Your task to perform on an android device: turn off picture-in-picture Image 0: 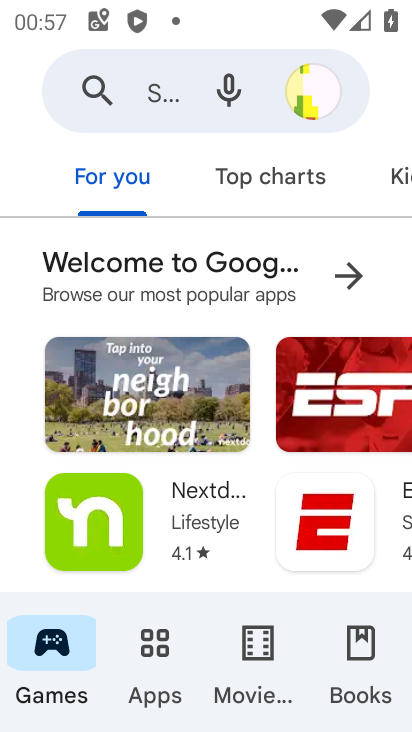
Step 0: press home button
Your task to perform on an android device: turn off picture-in-picture Image 1: 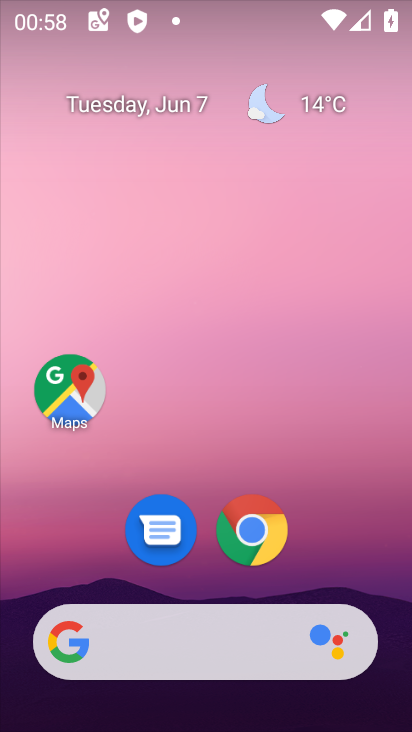
Step 1: click (253, 517)
Your task to perform on an android device: turn off picture-in-picture Image 2: 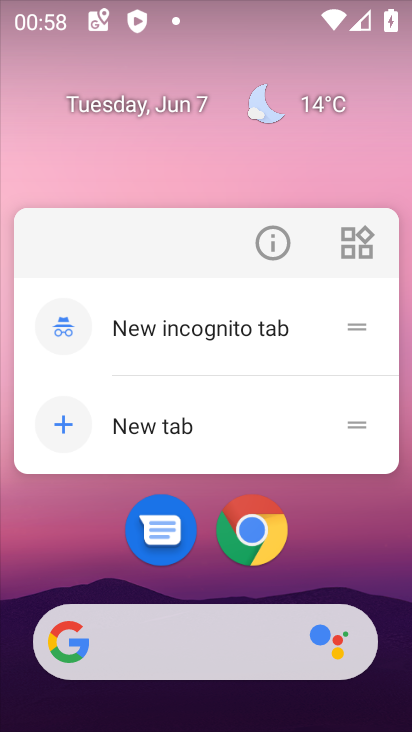
Step 2: click (338, 533)
Your task to perform on an android device: turn off picture-in-picture Image 3: 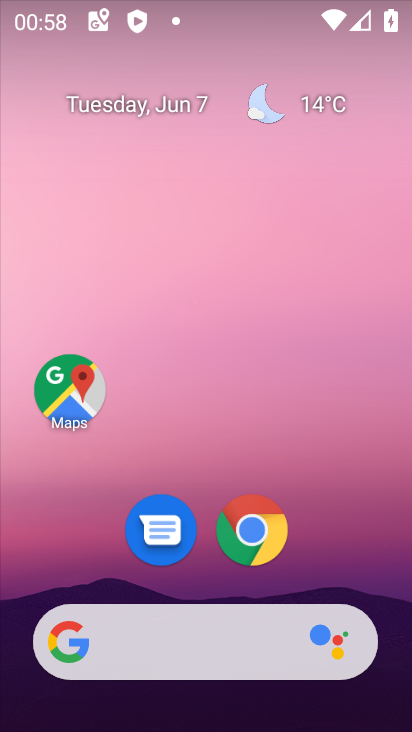
Step 3: drag from (322, 490) to (326, 261)
Your task to perform on an android device: turn off picture-in-picture Image 4: 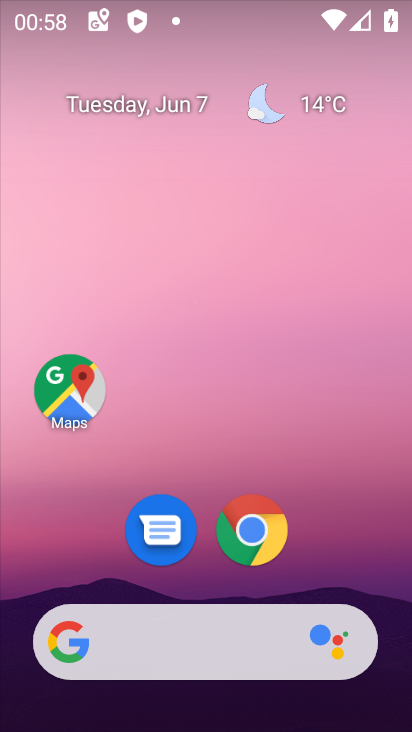
Step 4: drag from (264, 576) to (258, 160)
Your task to perform on an android device: turn off picture-in-picture Image 5: 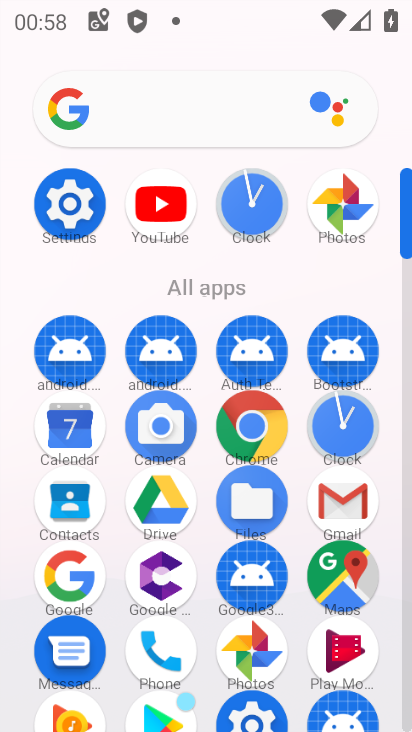
Step 5: click (68, 206)
Your task to perform on an android device: turn off picture-in-picture Image 6: 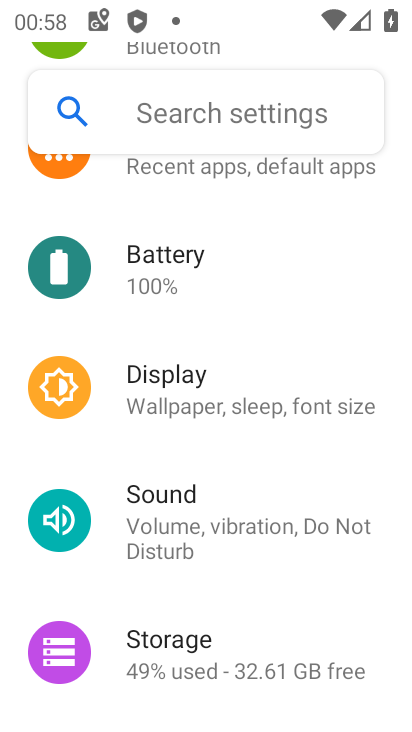
Step 6: drag from (203, 153) to (207, 560)
Your task to perform on an android device: turn off picture-in-picture Image 7: 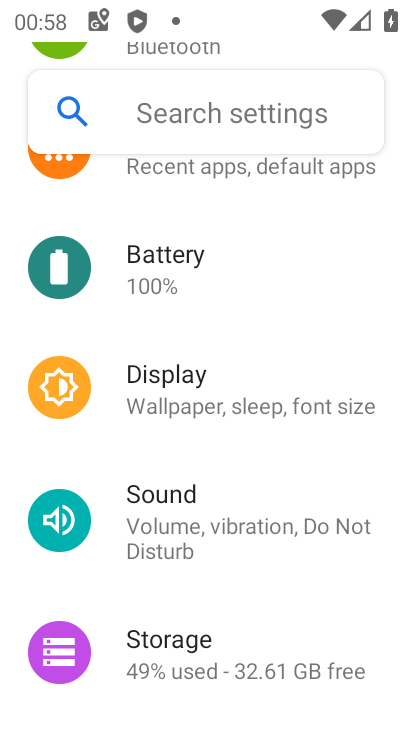
Step 7: drag from (186, 237) to (234, 575)
Your task to perform on an android device: turn off picture-in-picture Image 8: 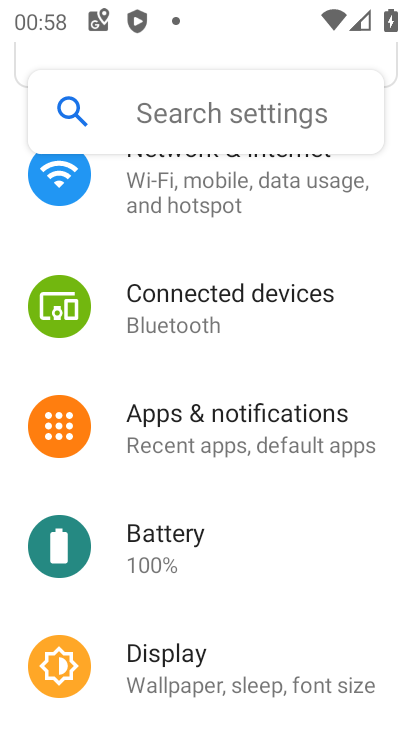
Step 8: drag from (229, 205) to (275, 686)
Your task to perform on an android device: turn off picture-in-picture Image 9: 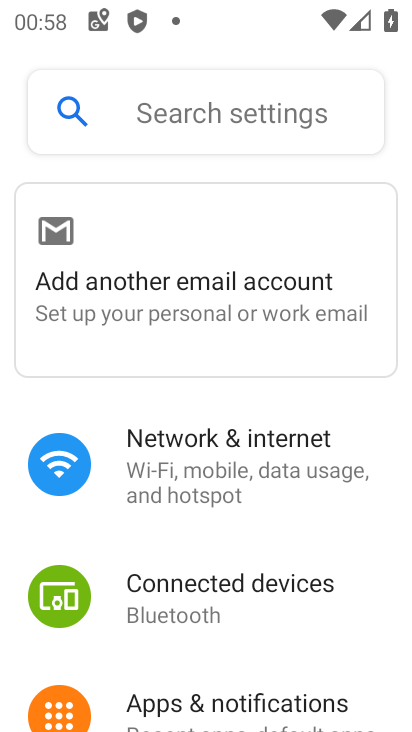
Step 9: click (199, 698)
Your task to perform on an android device: turn off picture-in-picture Image 10: 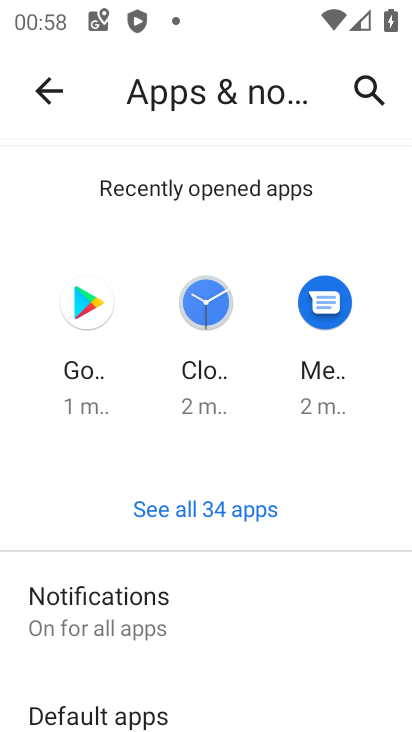
Step 10: drag from (216, 662) to (250, 302)
Your task to perform on an android device: turn off picture-in-picture Image 11: 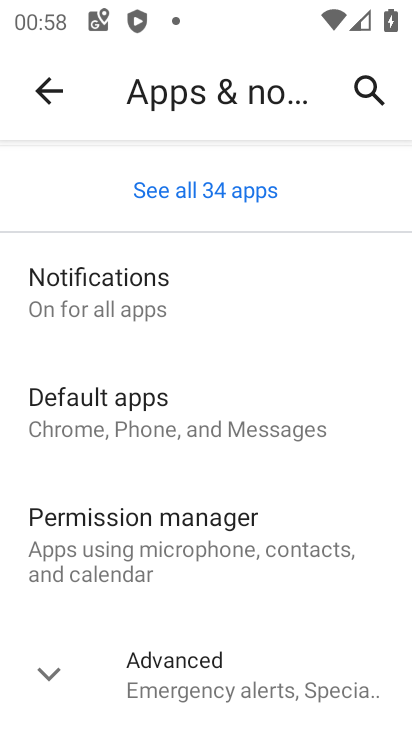
Step 11: drag from (204, 662) to (240, 324)
Your task to perform on an android device: turn off picture-in-picture Image 12: 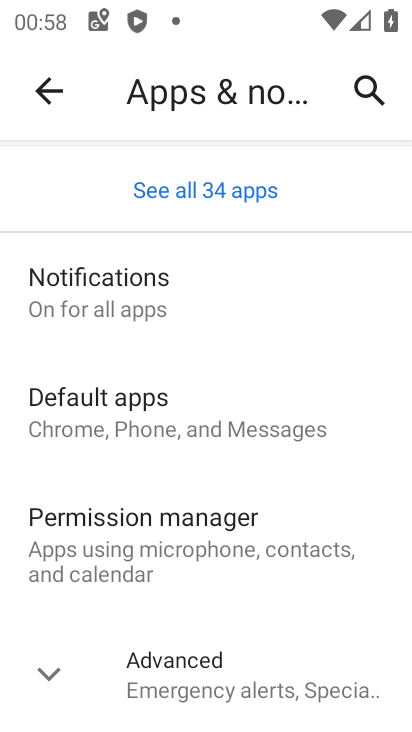
Step 12: click (244, 672)
Your task to perform on an android device: turn off picture-in-picture Image 13: 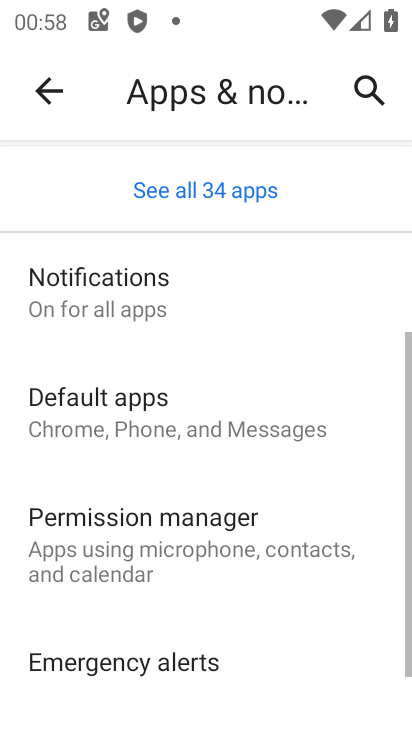
Step 13: drag from (263, 666) to (253, 274)
Your task to perform on an android device: turn off picture-in-picture Image 14: 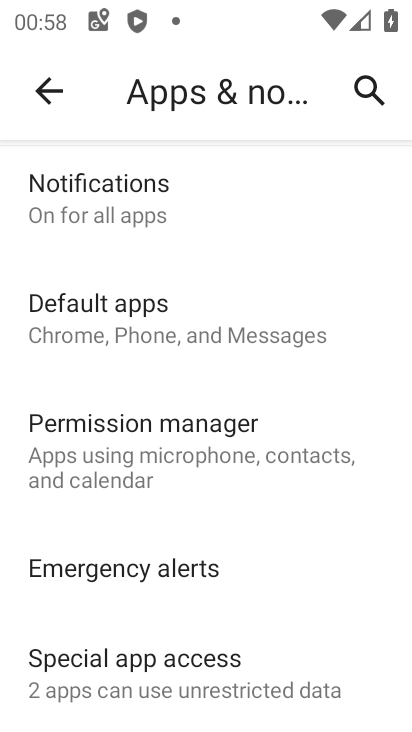
Step 14: click (175, 688)
Your task to perform on an android device: turn off picture-in-picture Image 15: 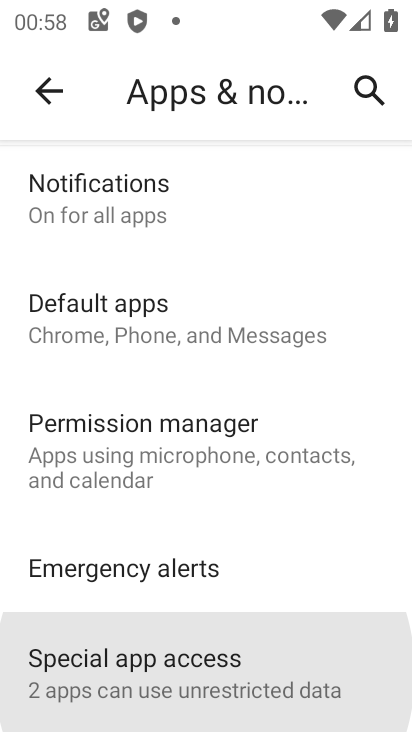
Step 15: click (177, 684)
Your task to perform on an android device: turn off picture-in-picture Image 16: 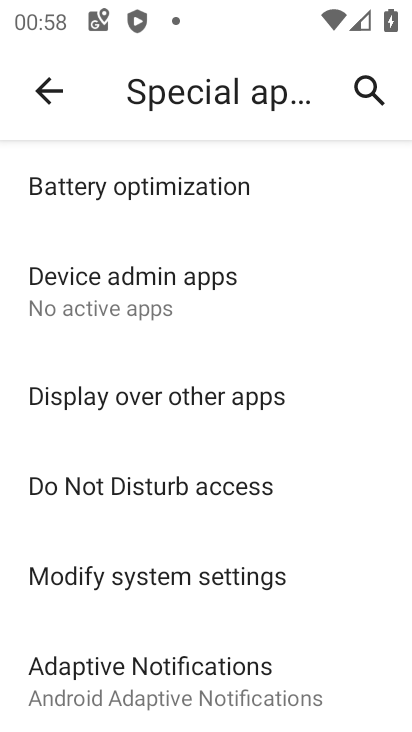
Step 16: drag from (224, 612) to (217, 331)
Your task to perform on an android device: turn off picture-in-picture Image 17: 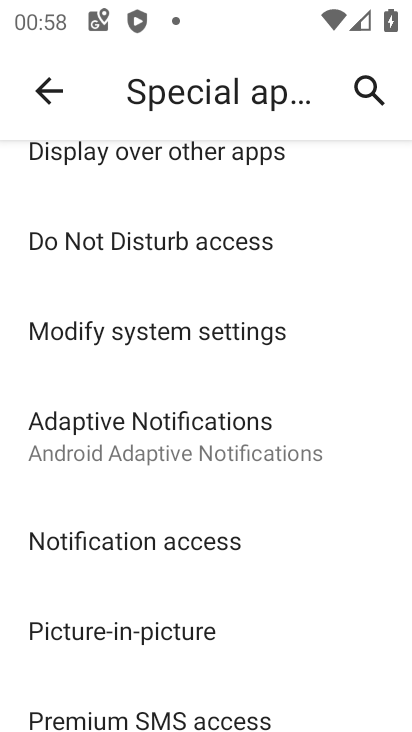
Step 17: click (168, 621)
Your task to perform on an android device: turn off picture-in-picture Image 18: 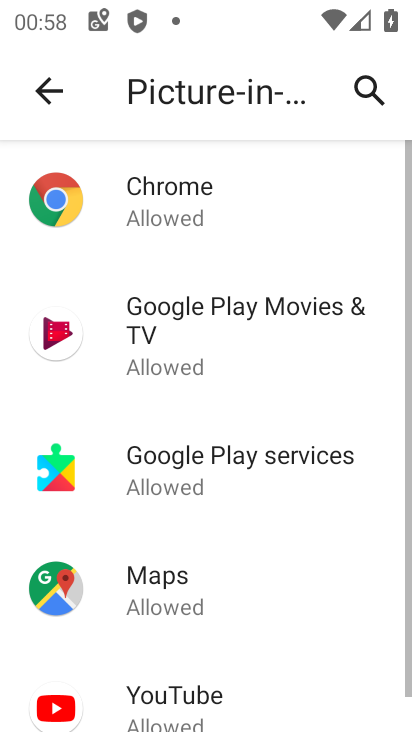
Step 18: click (172, 628)
Your task to perform on an android device: turn off picture-in-picture Image 19: 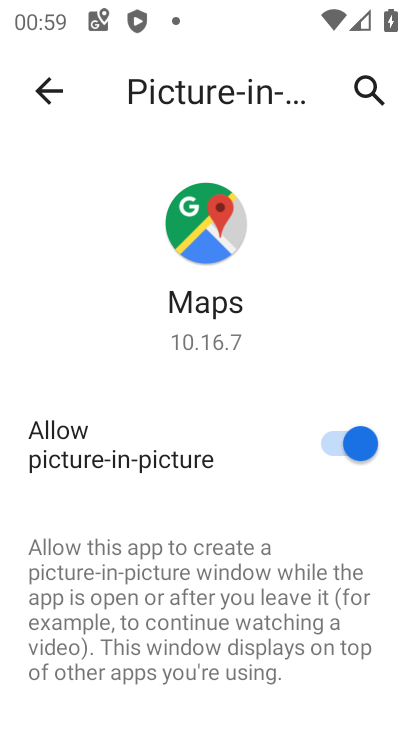
Step 19: drag from (232, 543) to (244, 278)
Your task to perform on an android device: turn off picture-in-picture Image 20: 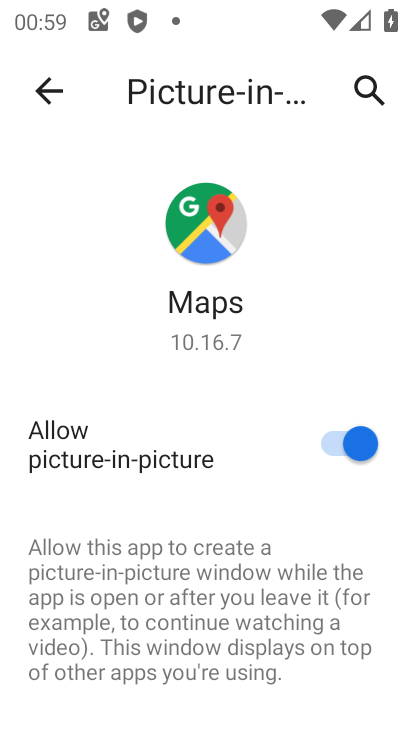
Step 20: click (45, 95)
Your task to perform on an android device: turn off picture-in-picture Image 21: 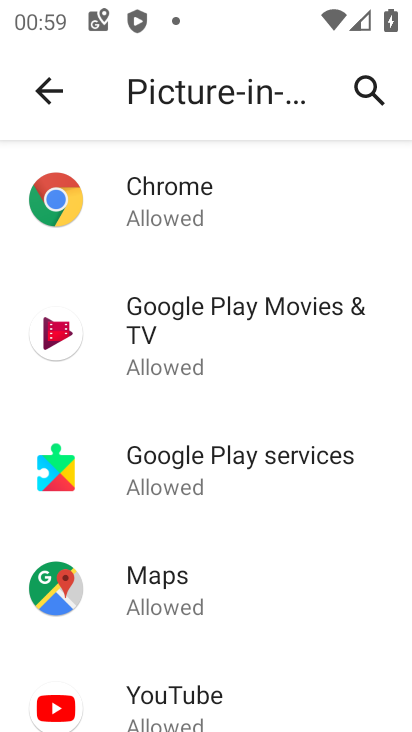
Step 21: drag from (255, 678) to (257, 398)
Your task to perform on an android device: turn off picture-in-picture Image 22: 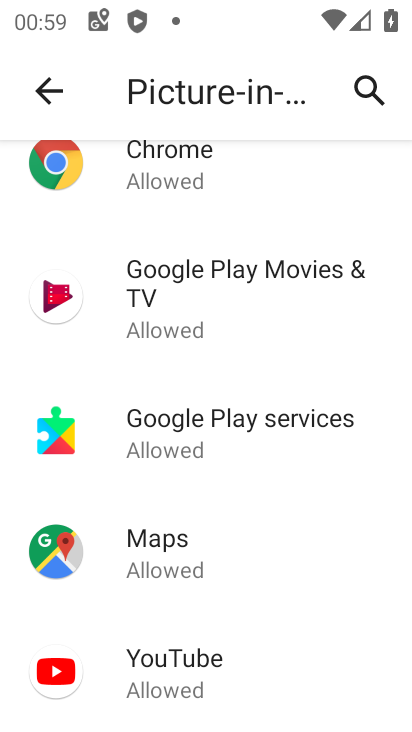
Step 22: click (174, 663)
Your task to perform on an android device: turn off picture-in-picture Image 23: 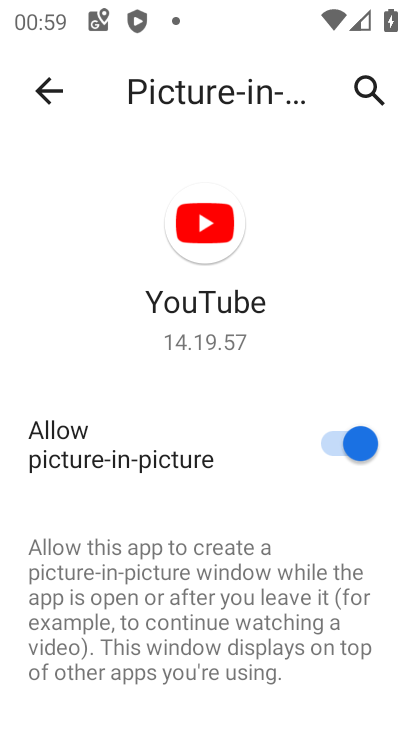
Step 23: click (332, 438)
Your task to perform on an android device: turn off picture-in-picture Image 24: 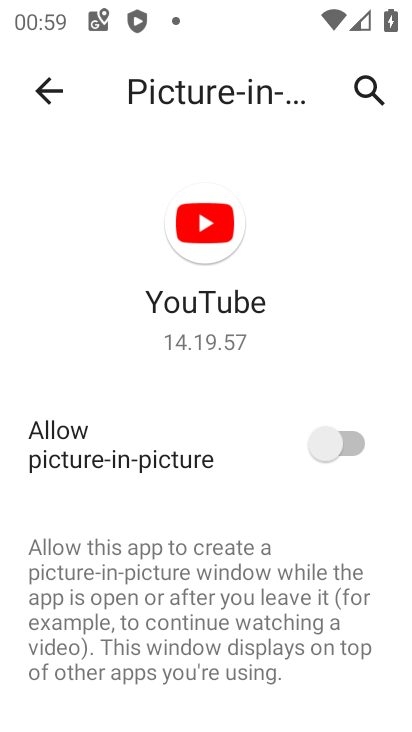
Step 24: task complete